Your task to perform on an android device: View the shopping cart on target. Search for logitech g903 on target, select the first entry, add it to the cart, then select checkout. Image 0: 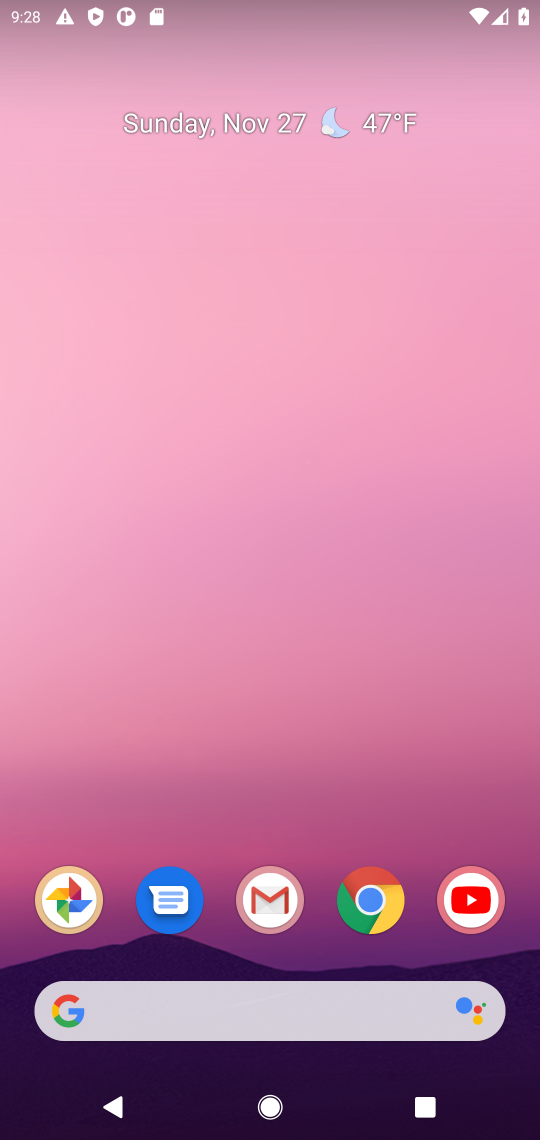
Step 0: click (369, 890)
Your task to perform on an android device: View the shopping cart on target. Search for logitech g903 on target, select the first entry, add it to the cart, then select checkout. Image 1: 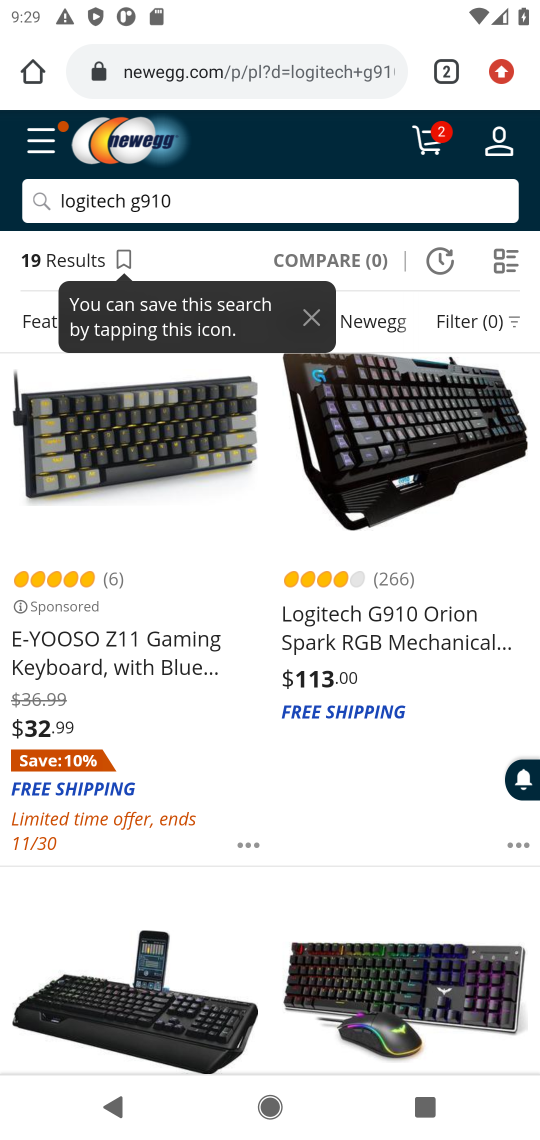
Step 1: click (220, 77)
Your task to perform on an android device: View the shopping cart on target. Search for logitech g903 on target, select the first entry, add it to the cart, then select checkout. Image 2: 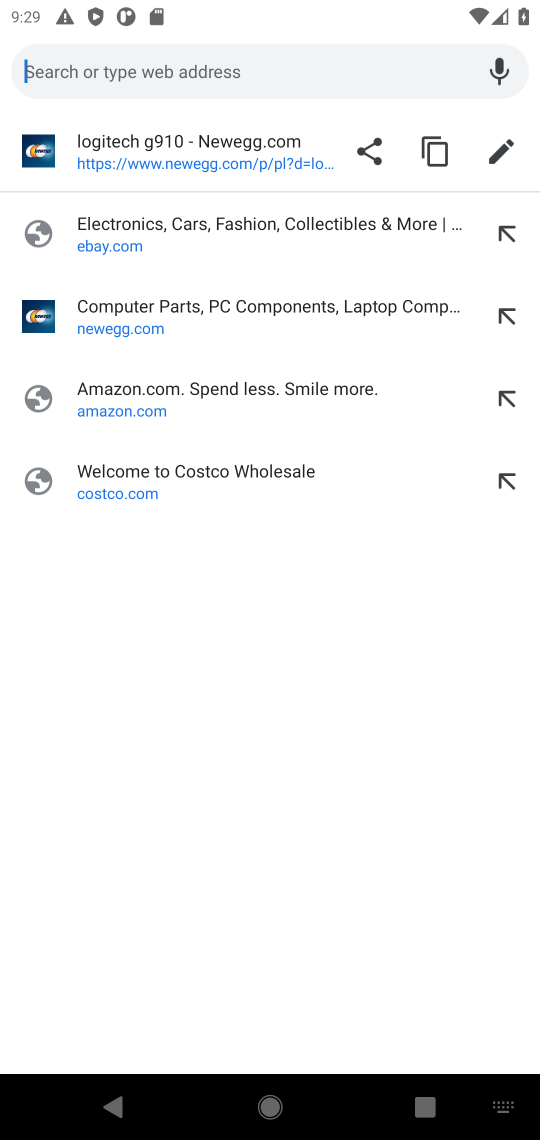
Step 2: type "target.com"
Your task to perform on an android device: View the shopping cart on target. Search for logitech g903 on target, select the first entry, add it to the cart, then select checkout. Image 3: 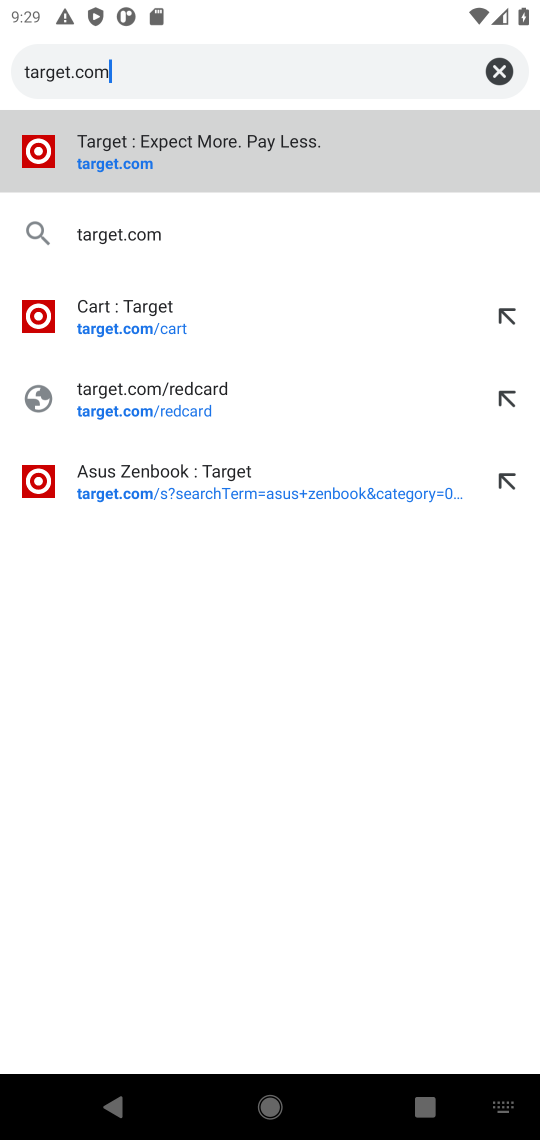
Step 3: click (122, 172)
Your task to perform on an android device: View the shopping cart on target. Search for logitech g903 on target, select the first entry, add it to the cart, then select checkout. Image 4: 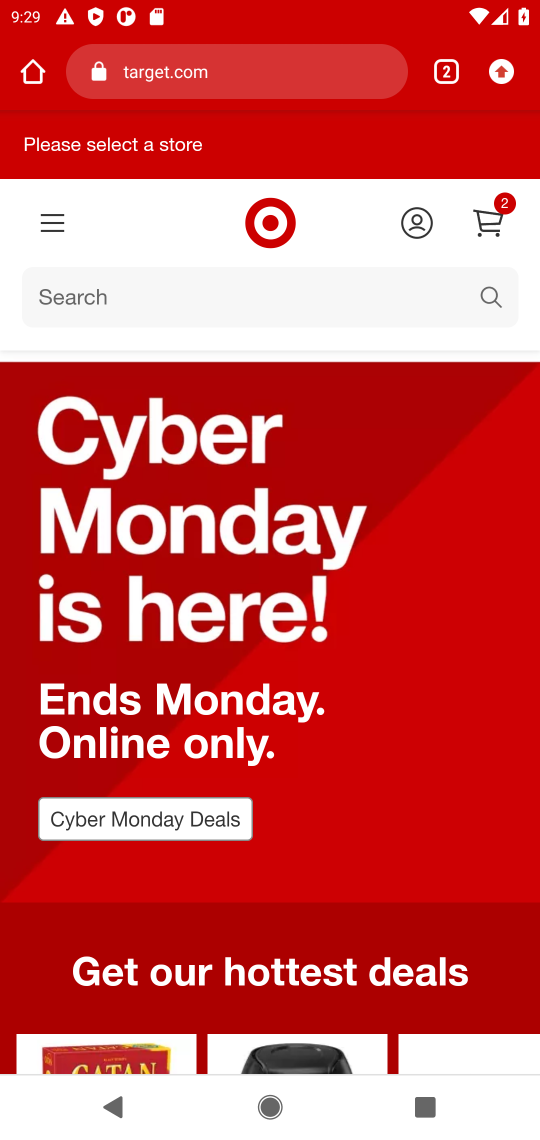
Step 4: click (468, 223)
Your task to perform on an android device: View the shopping cart on target. Search for logitech g903 on target, select the first entry, add it to the cart, then select checkout. Image 5: 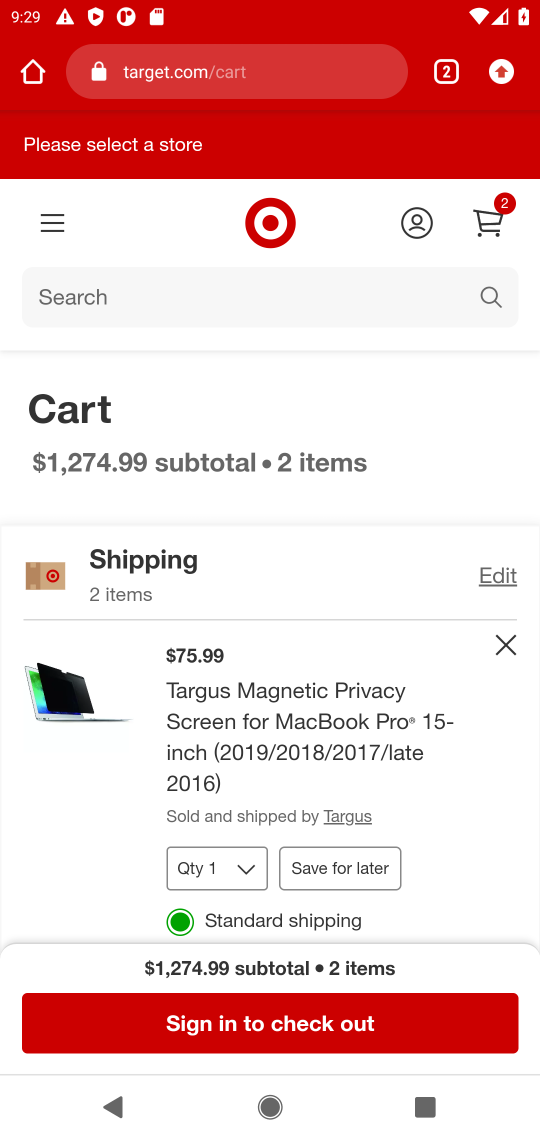
Step 5: click (485, 297)
Your task to perform on an android device: View the shopping cart on target. Search for logitech g903 on target, select the first entry, add it to the cart, then select checkout. Image 6: 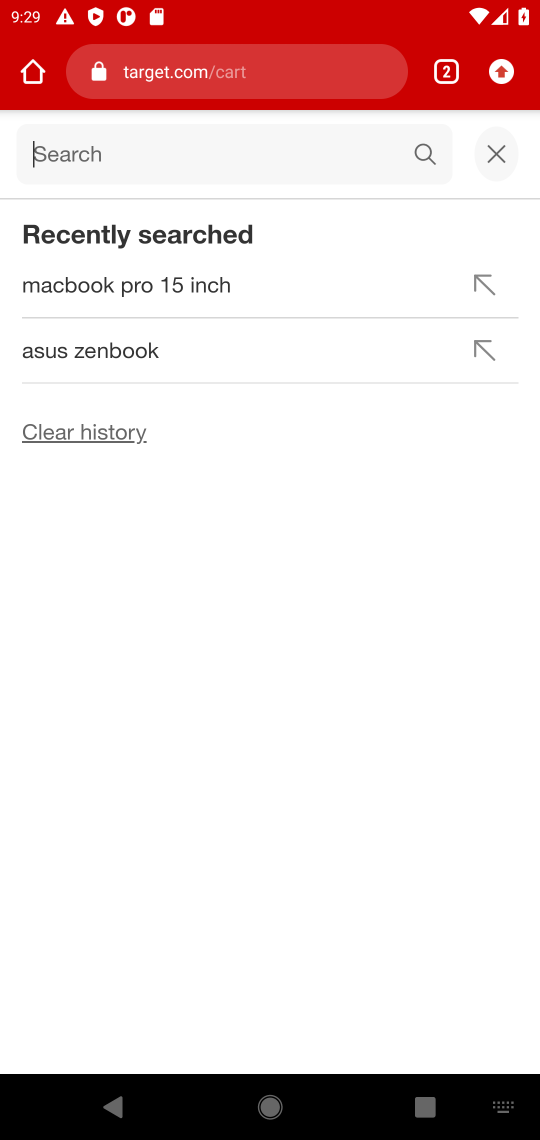
Step 6: type "logitech g903 "
Your task to perform on an android device: View the shopping cart on target. Search for logitech g903 on target, select the first entry, add it to the cart, then select checkout. Image 7: 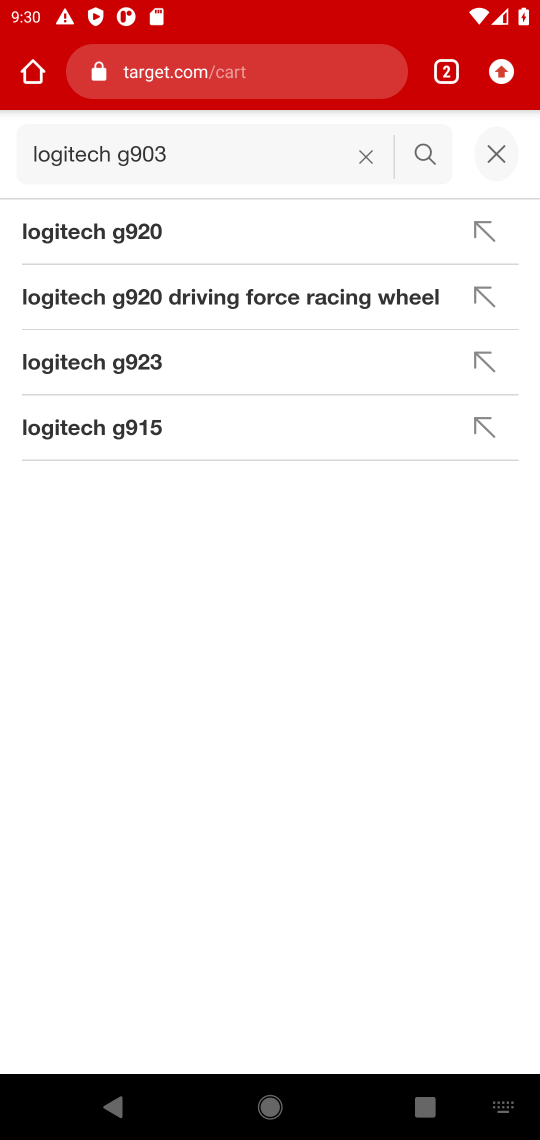
Step 7: click (421, 161)
Your task to perform on an android device: View the shopping cart on target. Search for logitech g903 on target, select the first entry, add it to the cart, then select checkout. Image 8: 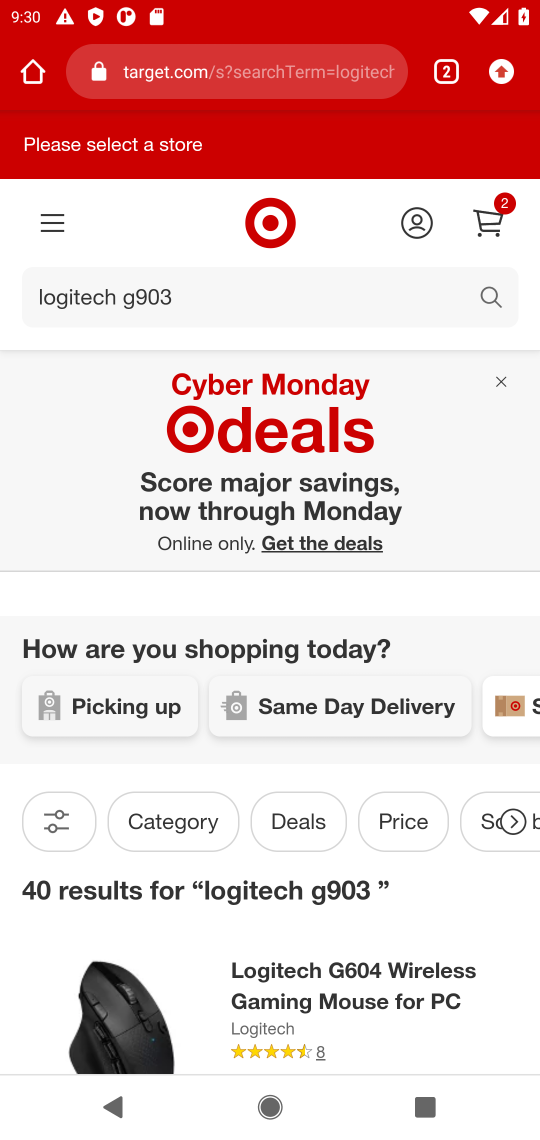
Step 8: task complete